Your task to perform on an android device: What is the news today? Image 0: 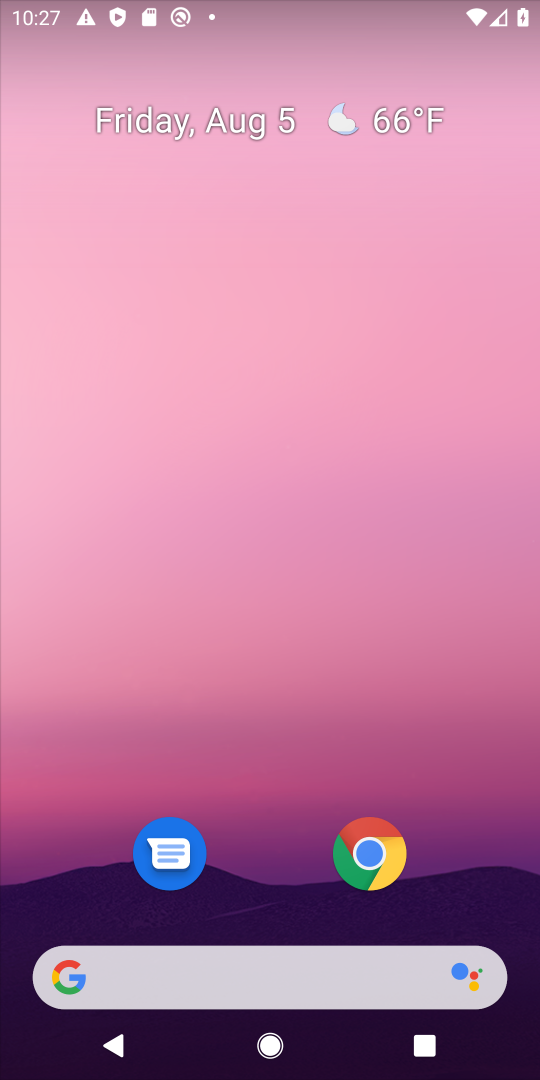
Step 0: click (246, 974)
Your task to perform on an android device: What is the news today? Image 1: 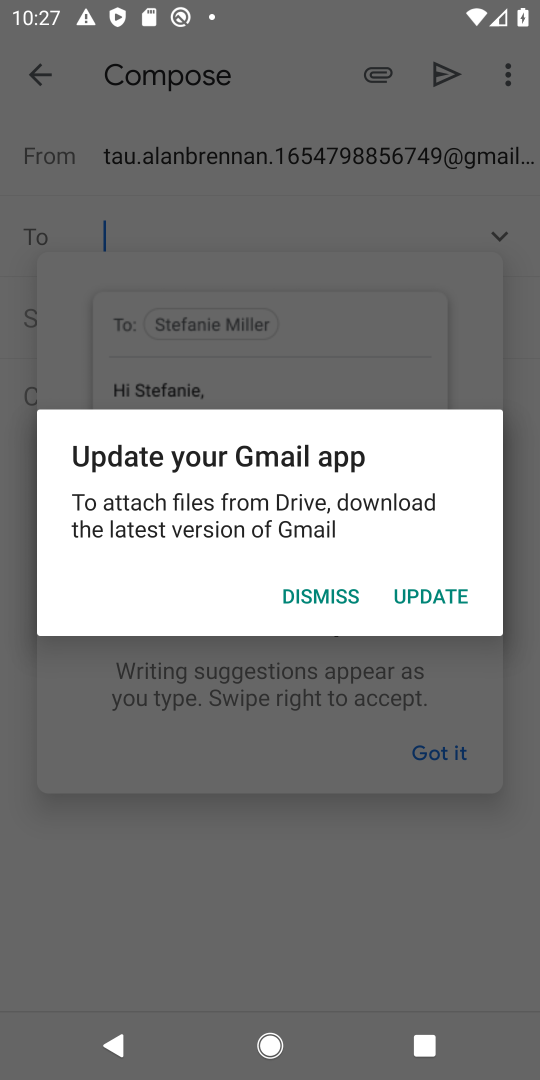
Step 1: press home button
Your task to perform on an android device: What is the news today? Image 2: 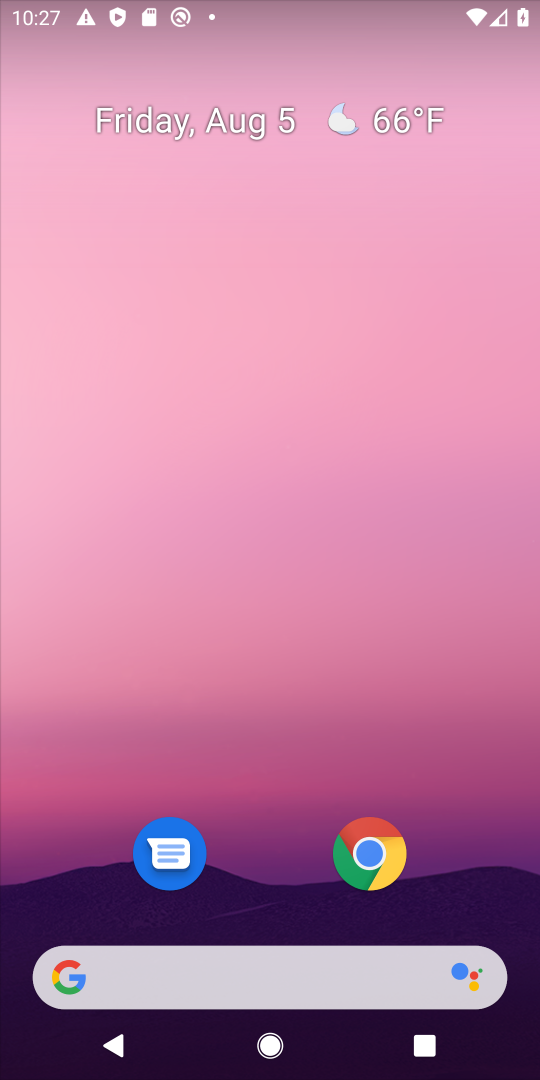
Step 2: click (202, 977)
Your task to perform on an android device: What is the news today? Image 3: 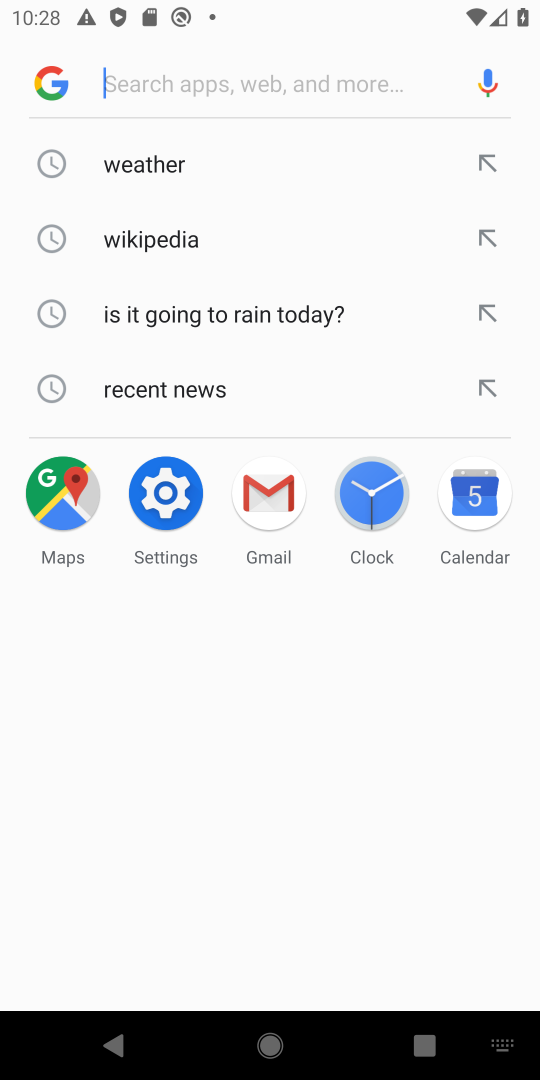
Step 3: type "what is the news today"
Your task to perform on an android device: What is the news today? Image 4: 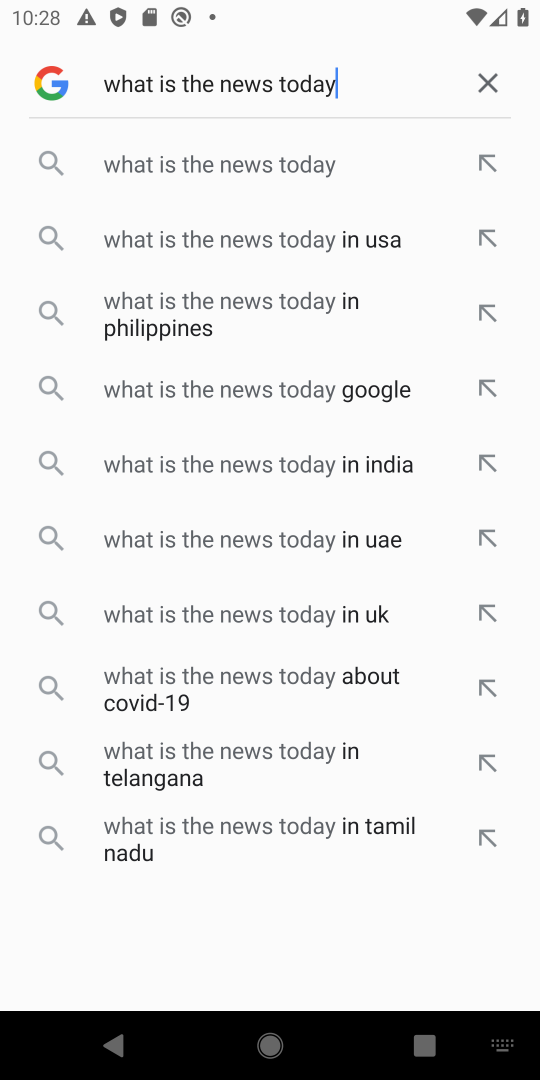
Step 4: click (228, 168)
Your task to perform on an android device: What is the news today? Image 5: 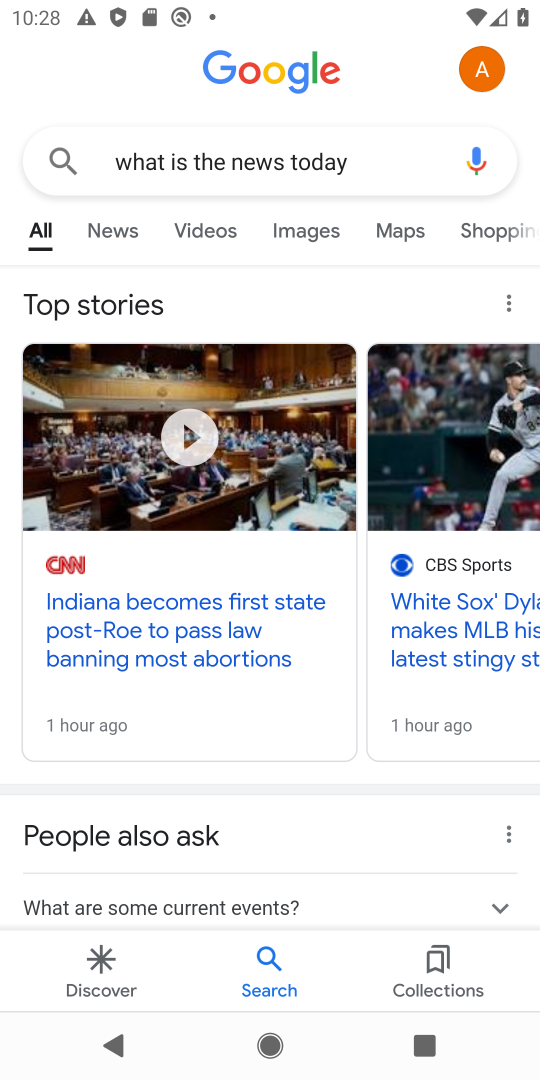
Step 5: click (122, 230)
Your task to perform on an android device: What is the news today? Image 6: 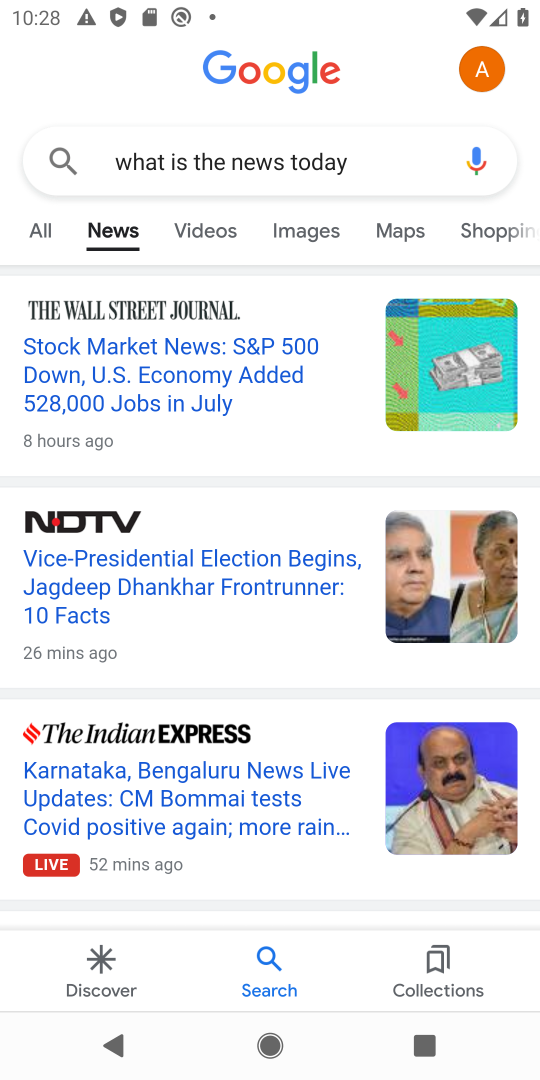
Step 6: task complete